Your task to perform on an android device: Search for seafood restaurants on Google Maps Image 0: 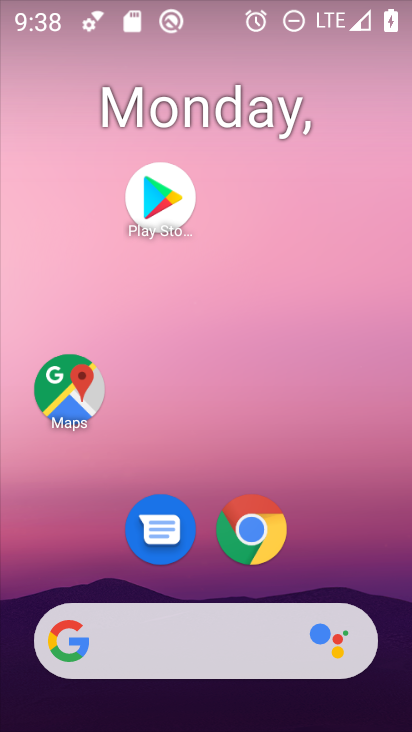
Step 0: click (64, 394)
Your task to perform on an android device: Search for seafood restaurants on Google Maps Image 1: 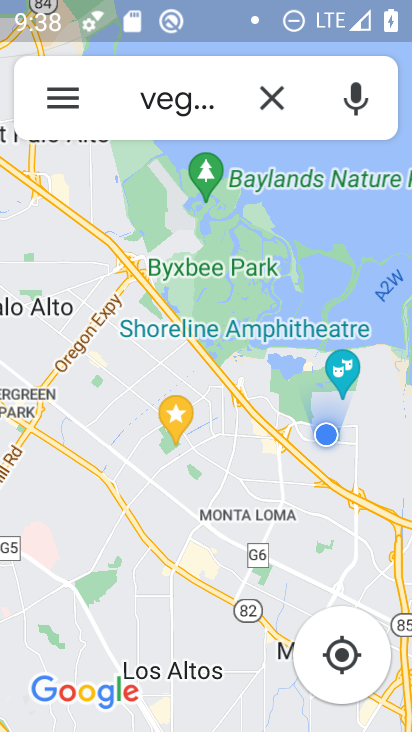
Step 1: click (265, 94)
Your task to perform on an android device: Search for seafood restaurants on Google Maps Image 2: 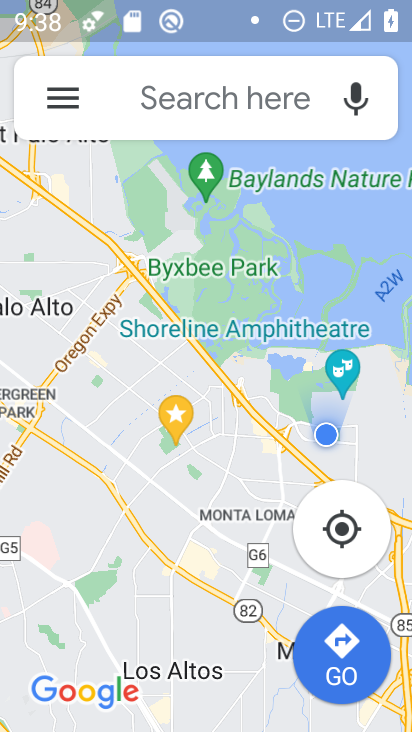
Step 2: click (209, 91)
Your task to perform on an android device: Search for seafood restaurants on Google Maps Image 3: 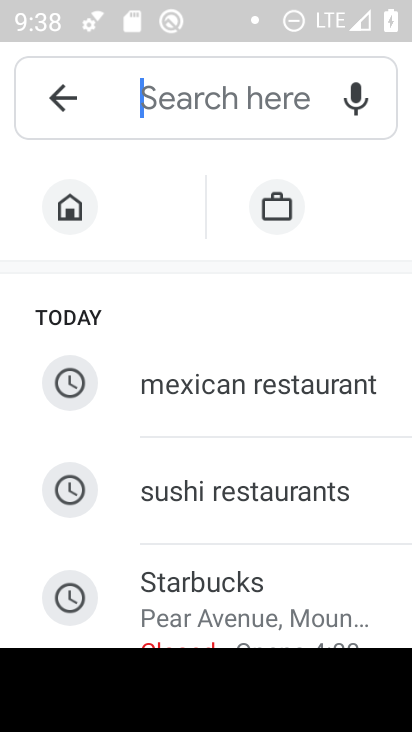
Step 3: type "seafood restaurants"
Your task to perform on an android device: Search for seafood restaurants on Google Maps Image 4: 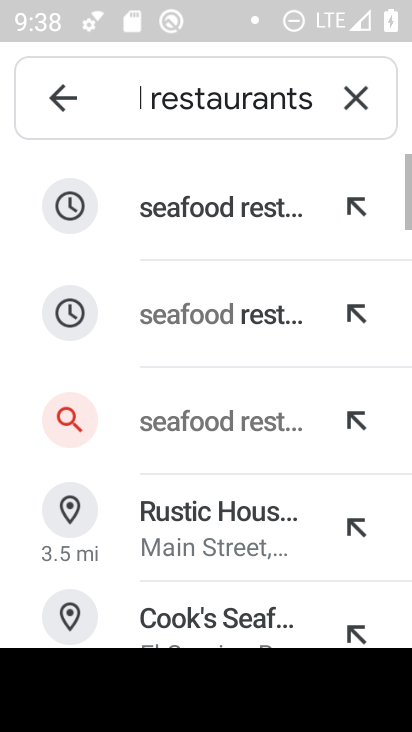
Step 4: click (180, 201)
Your task to perform on an android device: Search for seafood restaurants on Google Maps Image 5: 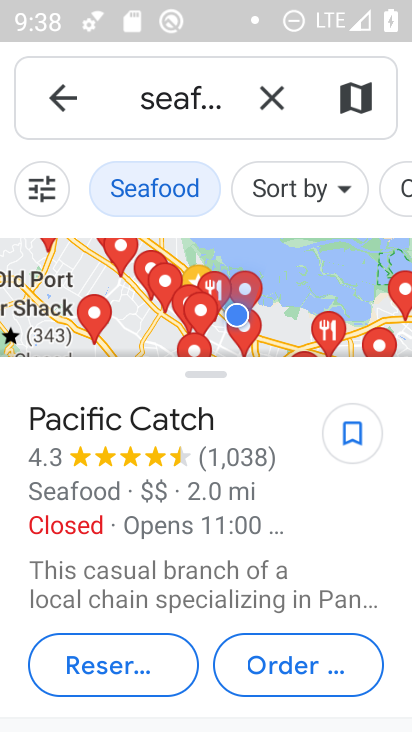
Step 5: task complete